Your task to perform on an android device: Show me the alarms in the clock app Image 0: 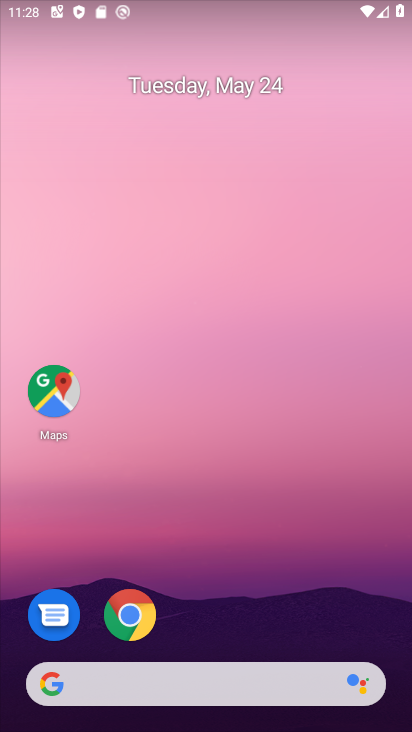
Step 0: click (195, 187)
Your task to perform on an android device: Show me the alarms in the clock app Image 1: 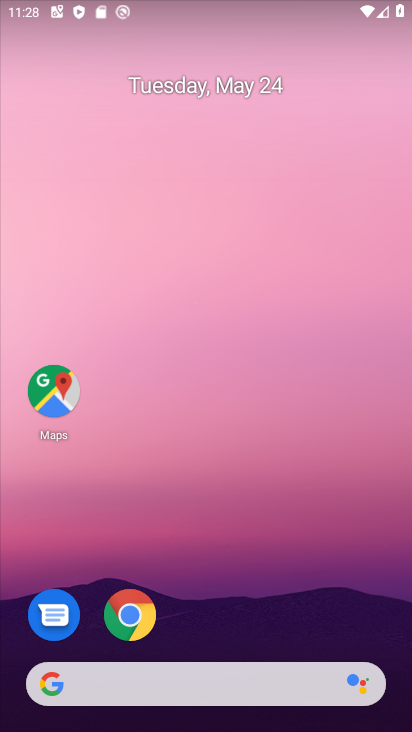
Step 1: drag from (189, 366) to (219, 8)
Your task to perform on an android device: Show me the alarms in the clock app Image 2: 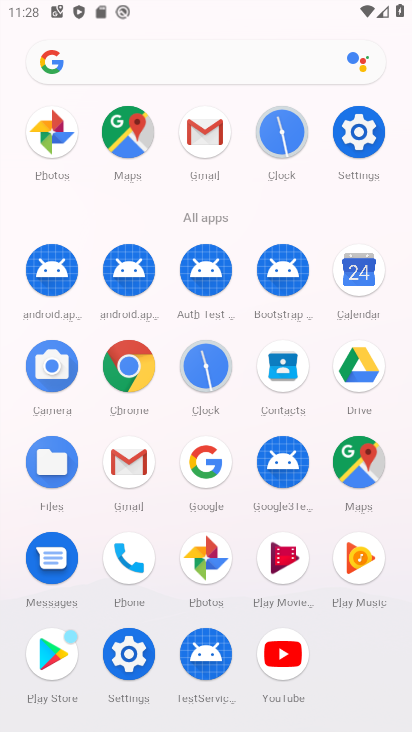
Step 2: click (291, 153)
Your task to perform on an android device: Show me the alarms in the clock app Image 3: 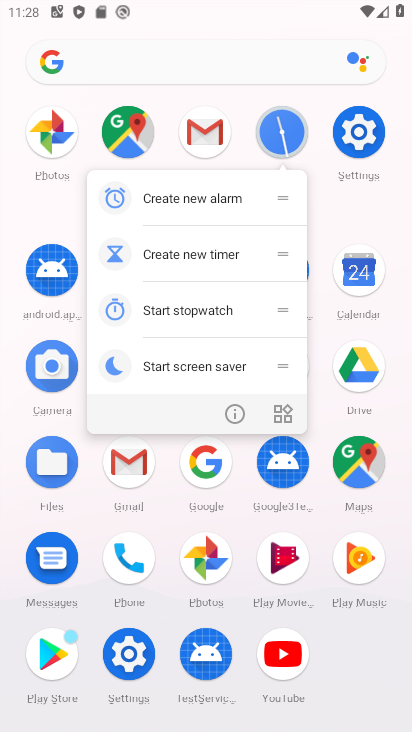
Step 3: click (281, 147)
Your task to perform on an android device: Show me the alarms in the clock app Image 4: 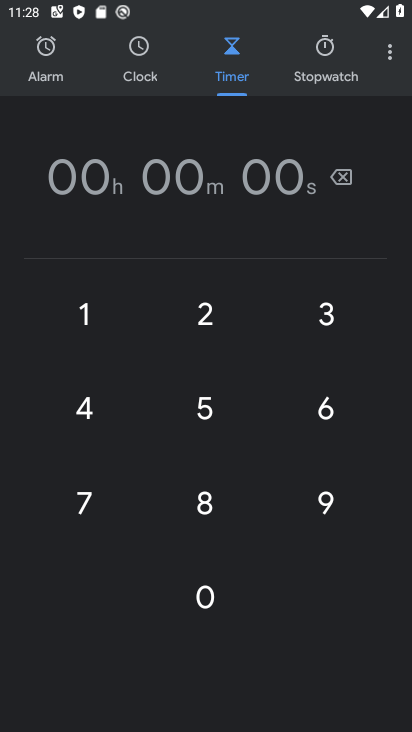
Step 4: click (30, 81)
Your task to perform on an android device: Show me the alarms in the clock app Image 5: 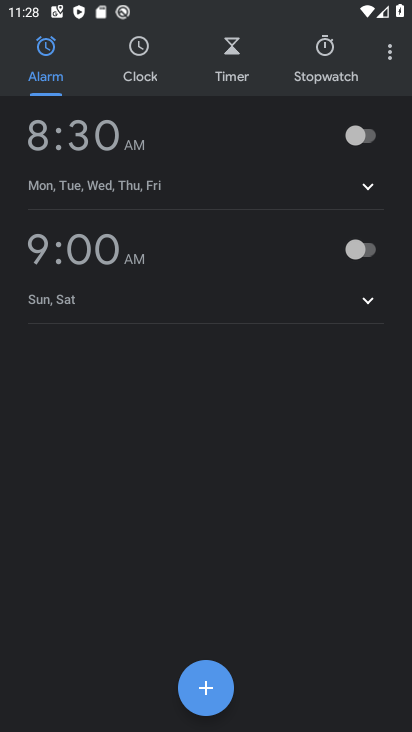
Step 5: click (44, 80)
Your task to perform on an android device: Show me the alarms in the clock app Image 6: 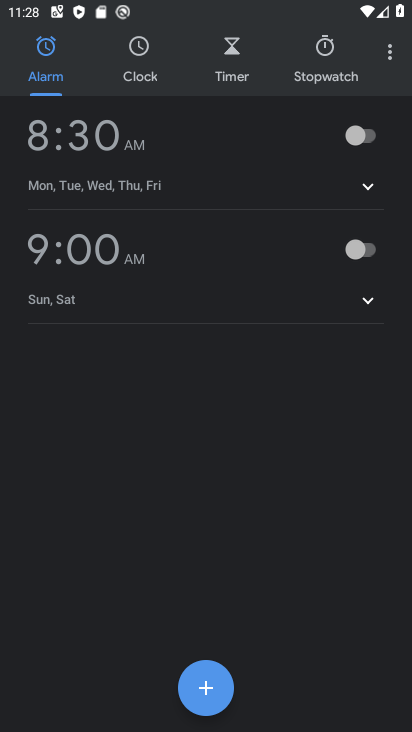
Step 6: task complete